Your task to perform on an android device: Go to calendar. Show me events next week Image 0: 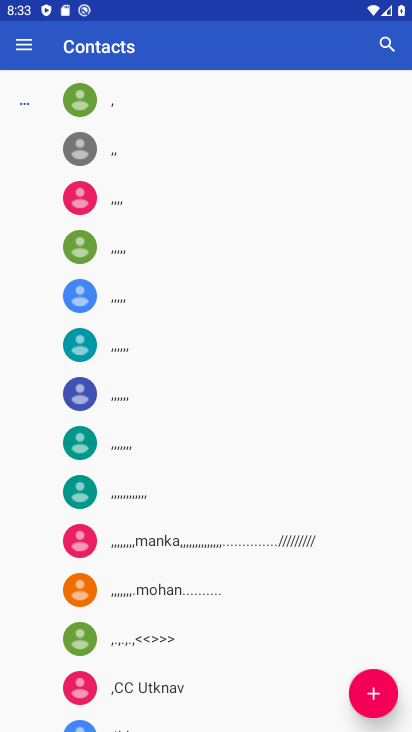
Step 0: click (216, 612)
Your task to perform on an android device: Go to calendar. Show me events next week Image 1: 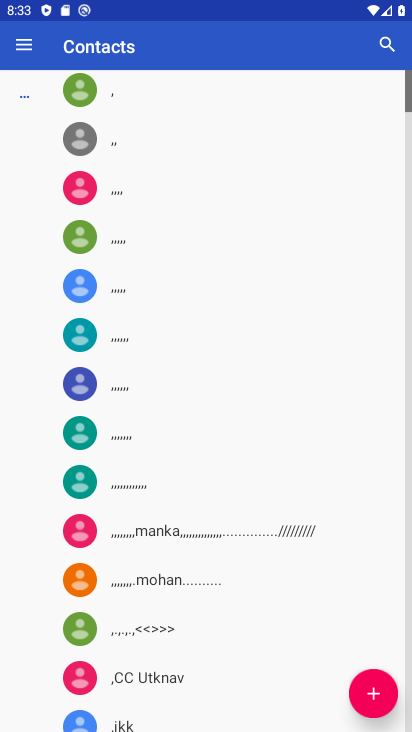
Step 1: press home button
Your task to perform on an android device: Go to calendar. Show me events next week Image 2: 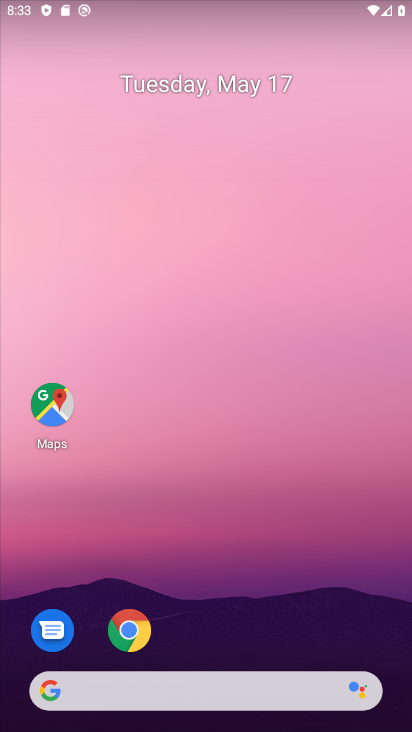
Step 2: drag from (216, 630) to (198, 300)
Your task to perform on an android device: Go to calendar. Show me events next week Image 3: 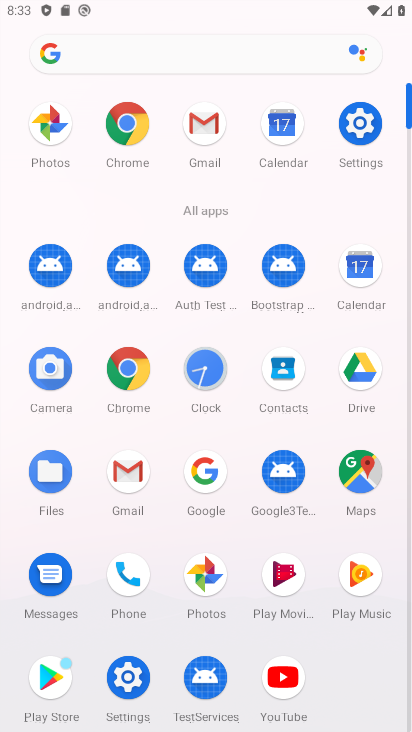
Step 3: click (348, 301)
Your task to perform on an android device: Go to calendar. Show me events next week Image 4: 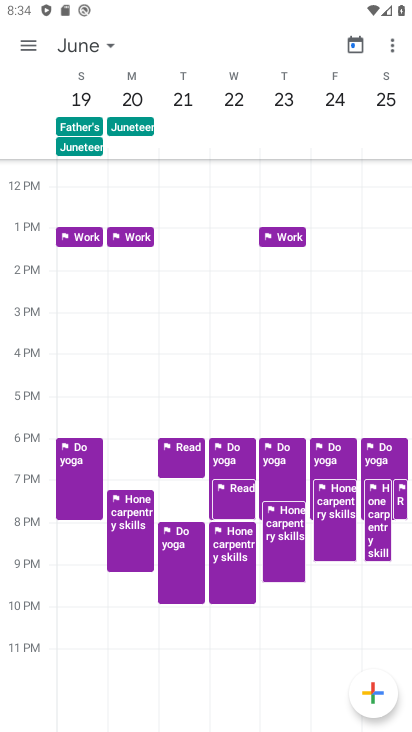
Step 4: click (70, 49)
Your task to perform on an android device: Go to calendar. Show me events next week Image 5: 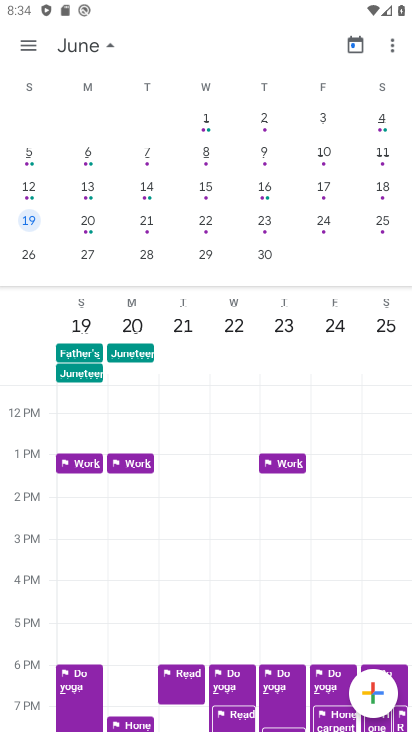
Step 5: drag from (53, 213) to (386, 209)
Your task to perform on an android device: Go to calendar. Show me events next week Image 6: 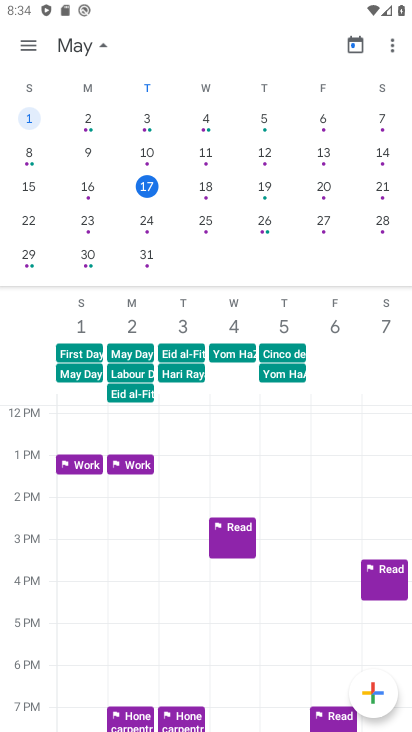
Step 6: click (34, 225)
Your task to perform on an android device: Go to calendar. Show me events next week Image 7: 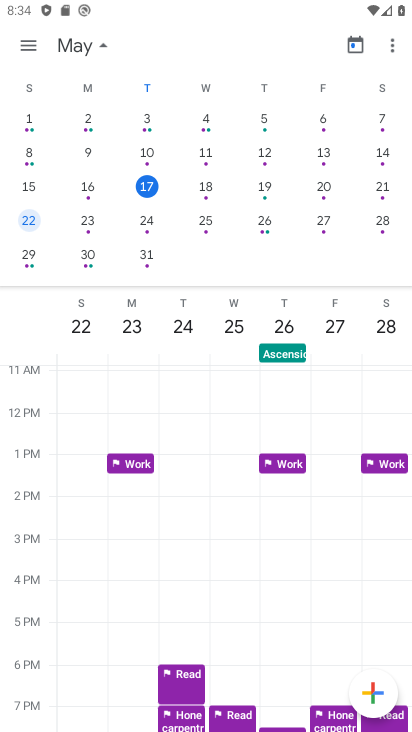
Step 7: task complete